Your task to perform on an android device: Open battery settings Image 0: 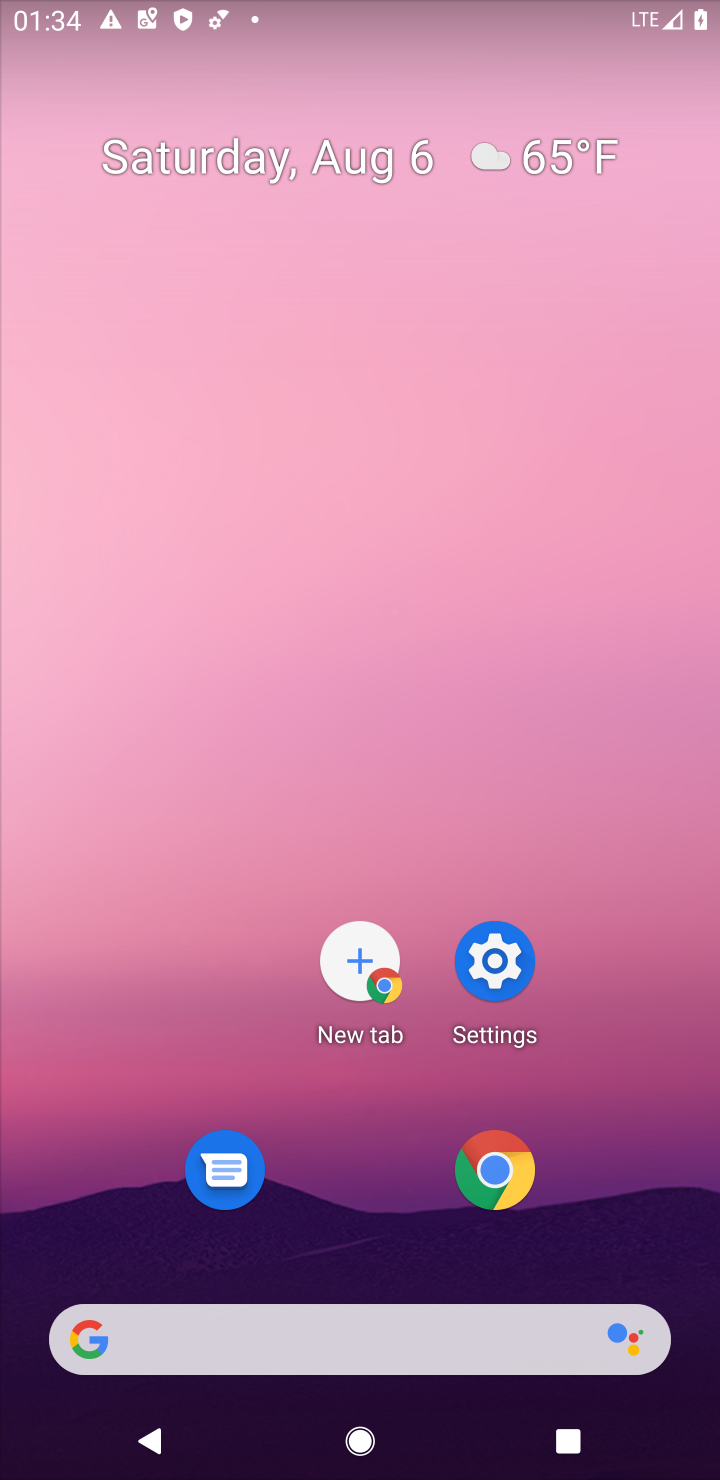
Step 0: click (499, 1160)
Your task to perform on an android device: Open battery settings Image 1: 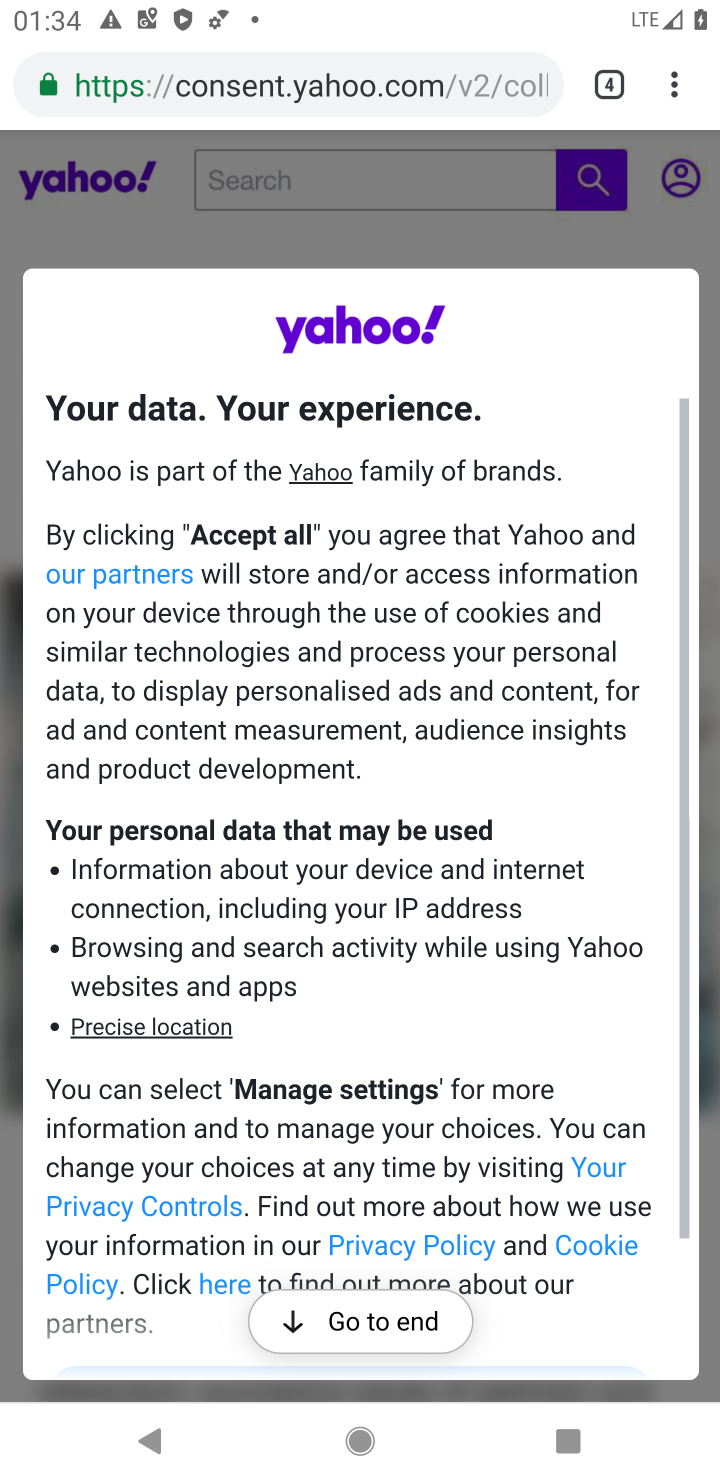
Step 1: click (356, 90)
Your task to perform on an android device: Open battery settings Image 2: 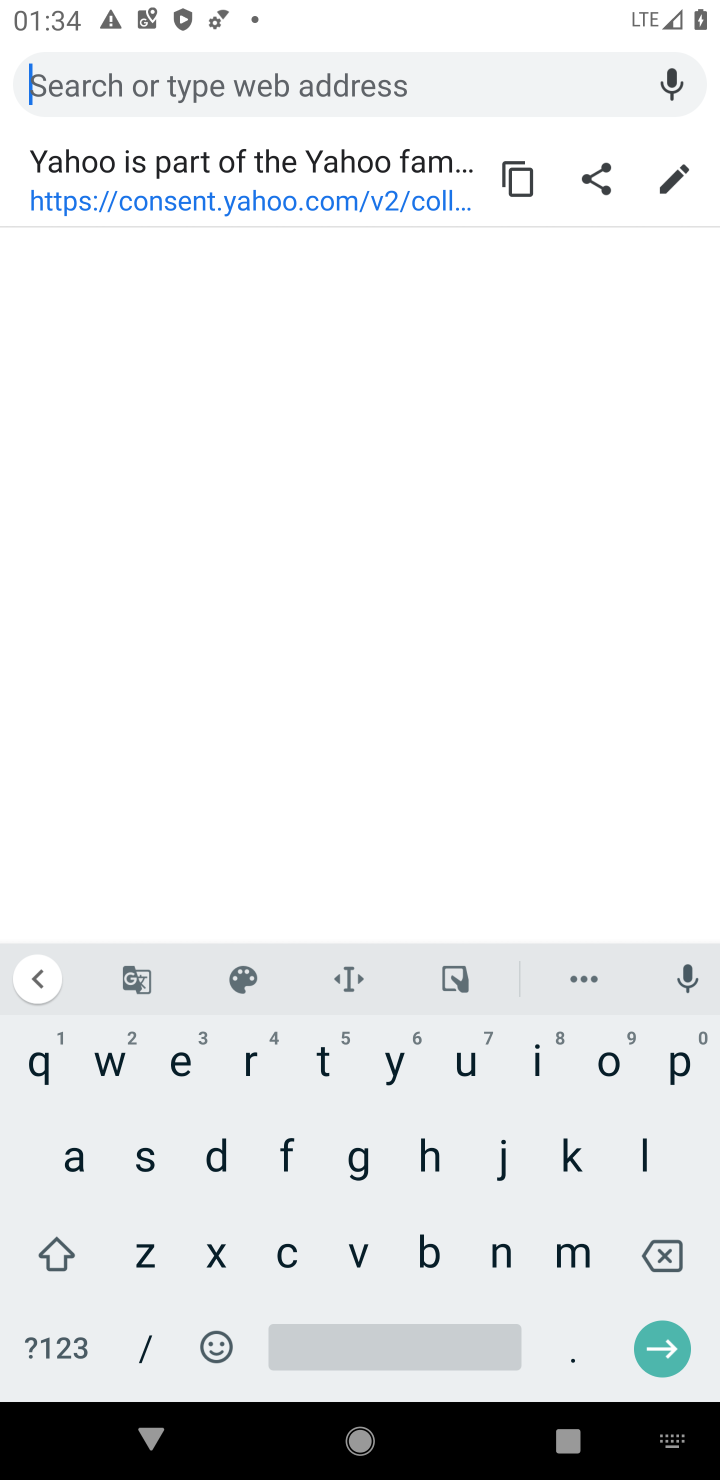
Step 2: click (352, 1163)
Your task to perform on an android device: Open battery settings Image 3: 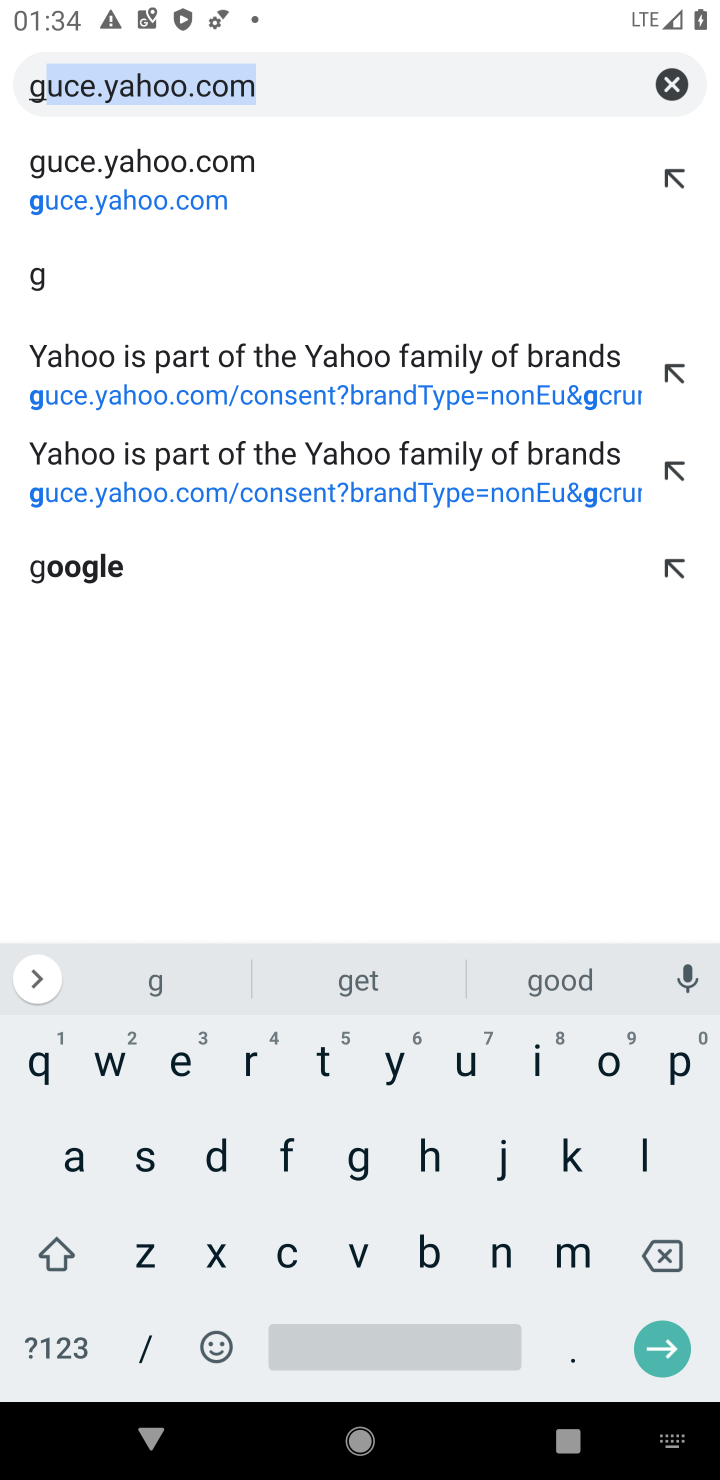
Step 3: click (611, 1046)
Your task to perform on an android device: Open battery settings Image 4: 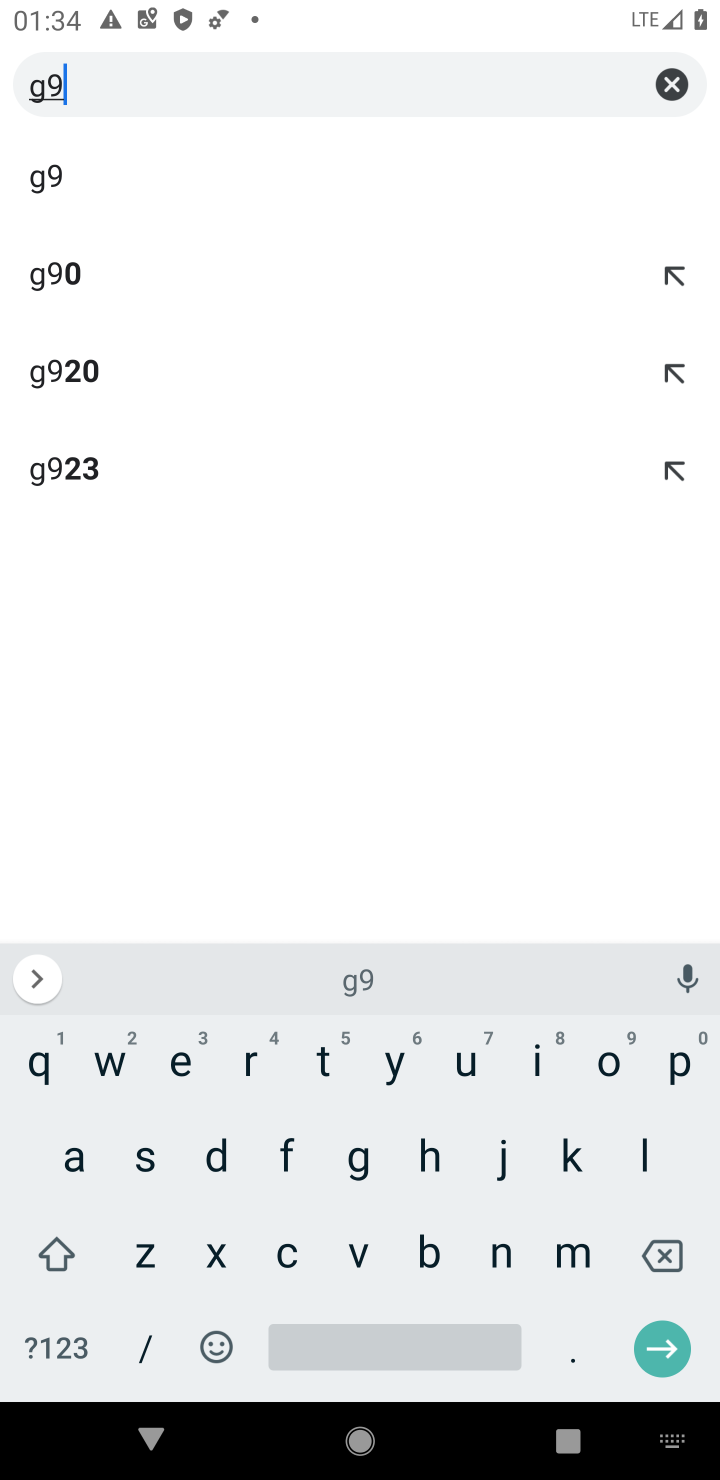
Step 4: click (671, 1246)
Your task to perform on an android device: Open battery settings Image 5: 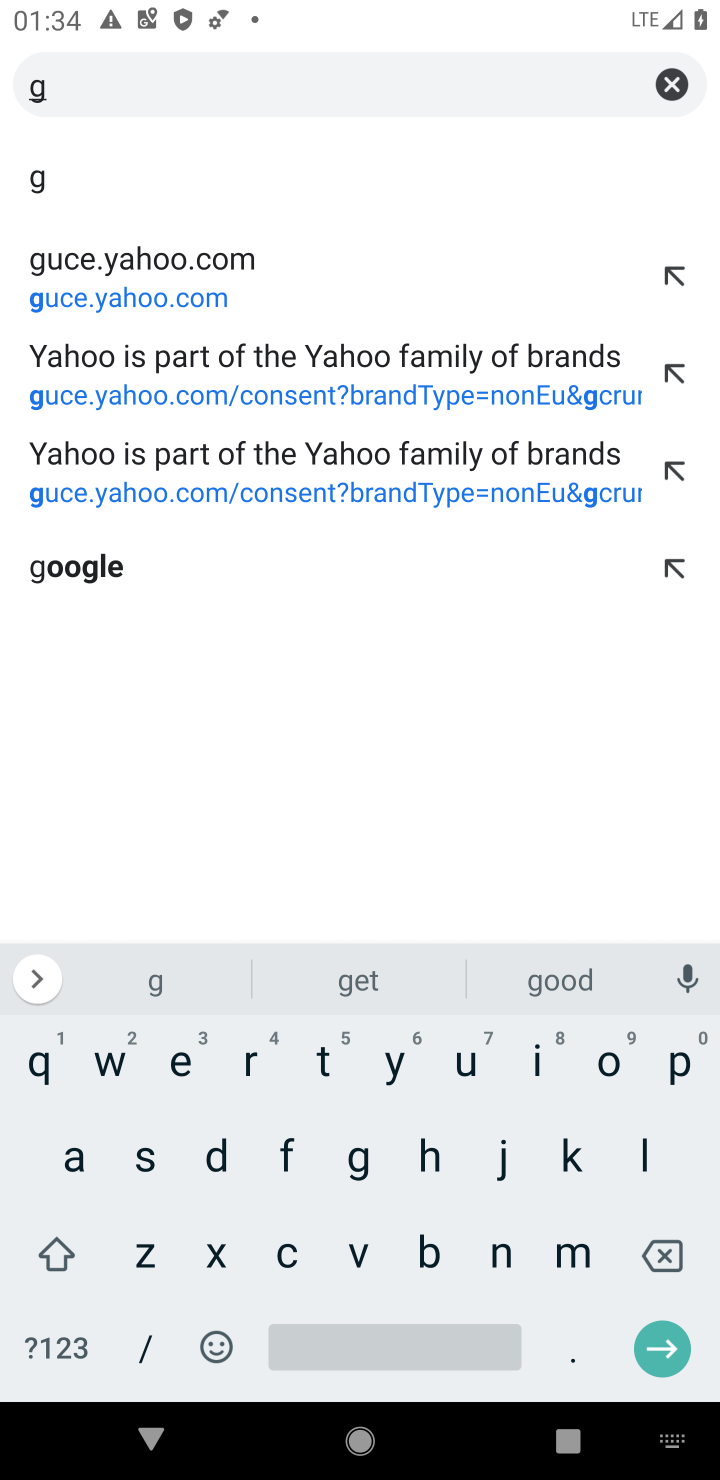
Step 5: click (604, 1065)
Your task to perform on an android device: Open battery settings Image 6: 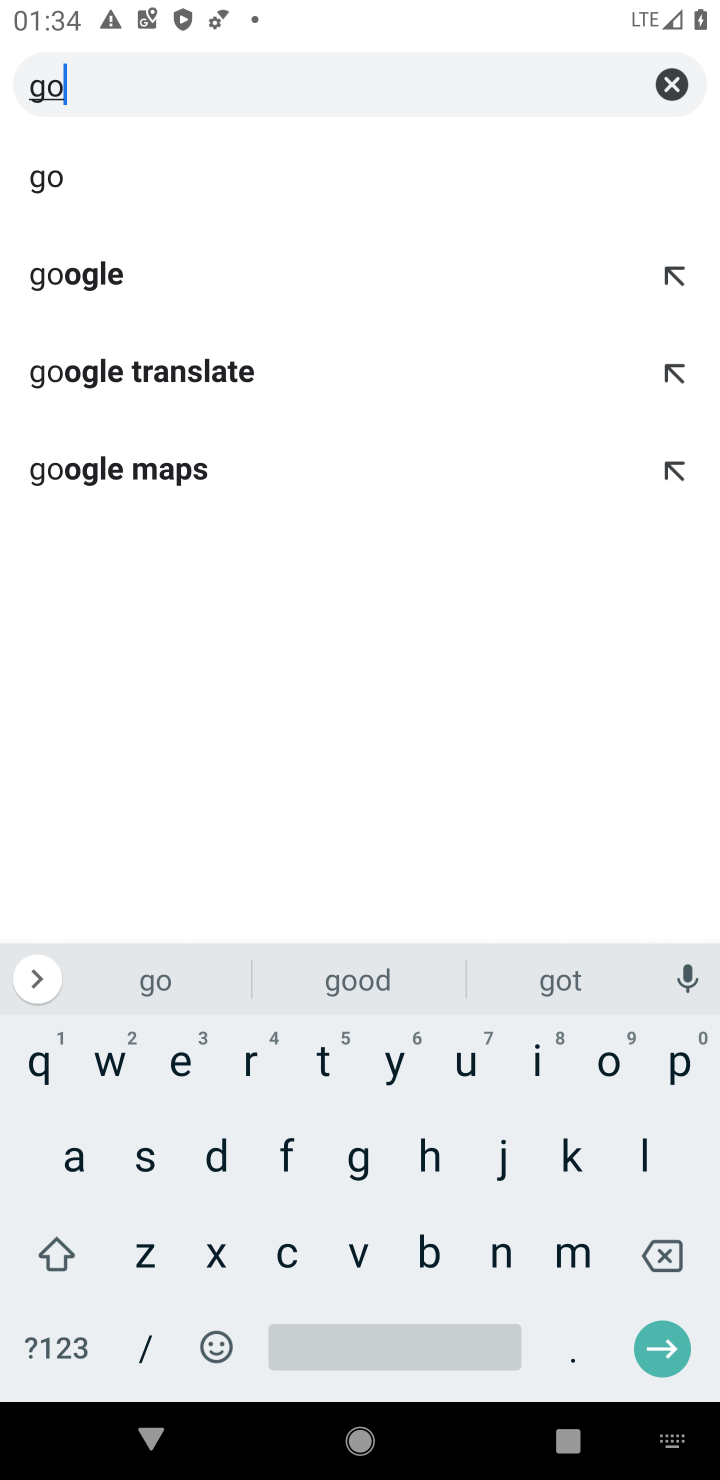
Step 6: click (604, 1065)
Your task to perform on an android device: Open battery settings Image 7: 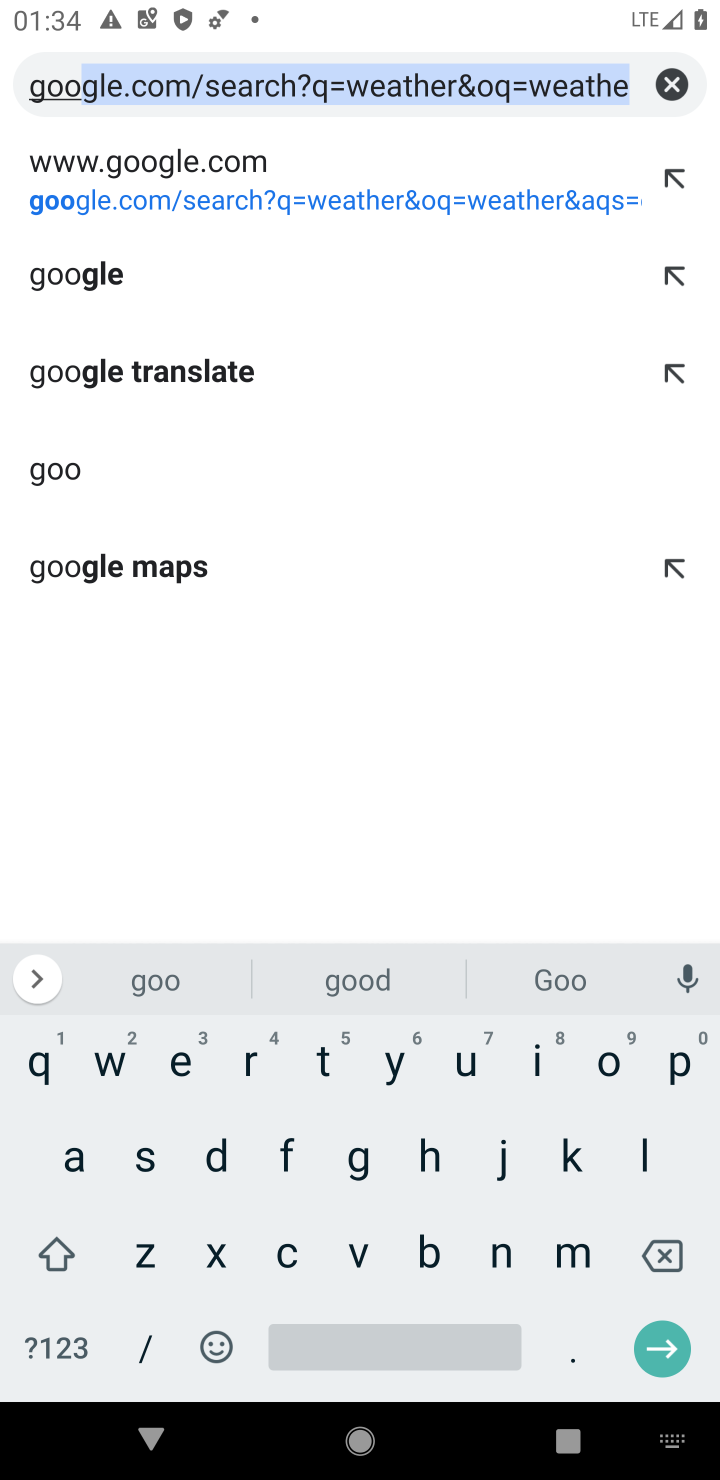
Step 7: click (50, 294)
Your task to perform on an android device: Open battery settings Image 8: 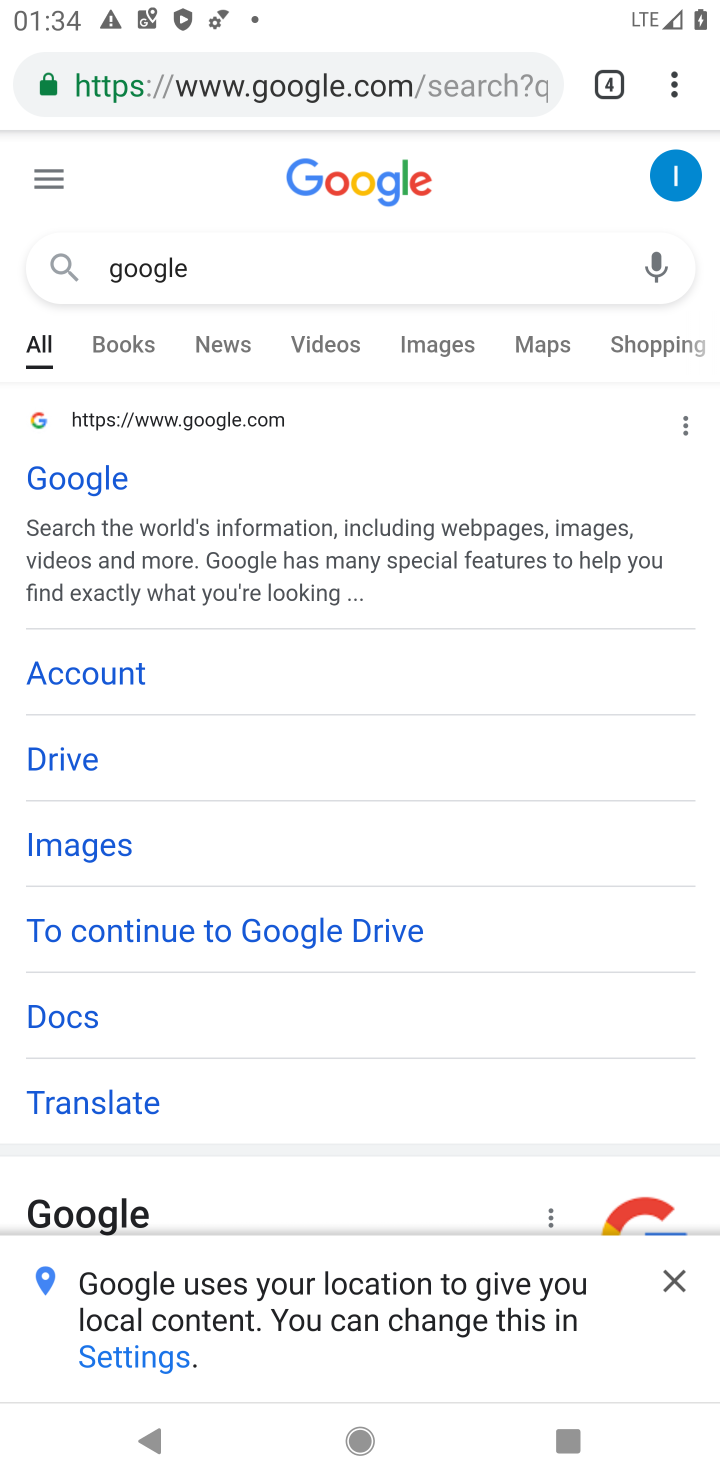
Step 8: click (90, 485)
Your task to perform on an android device: Open battery settings Image 9: 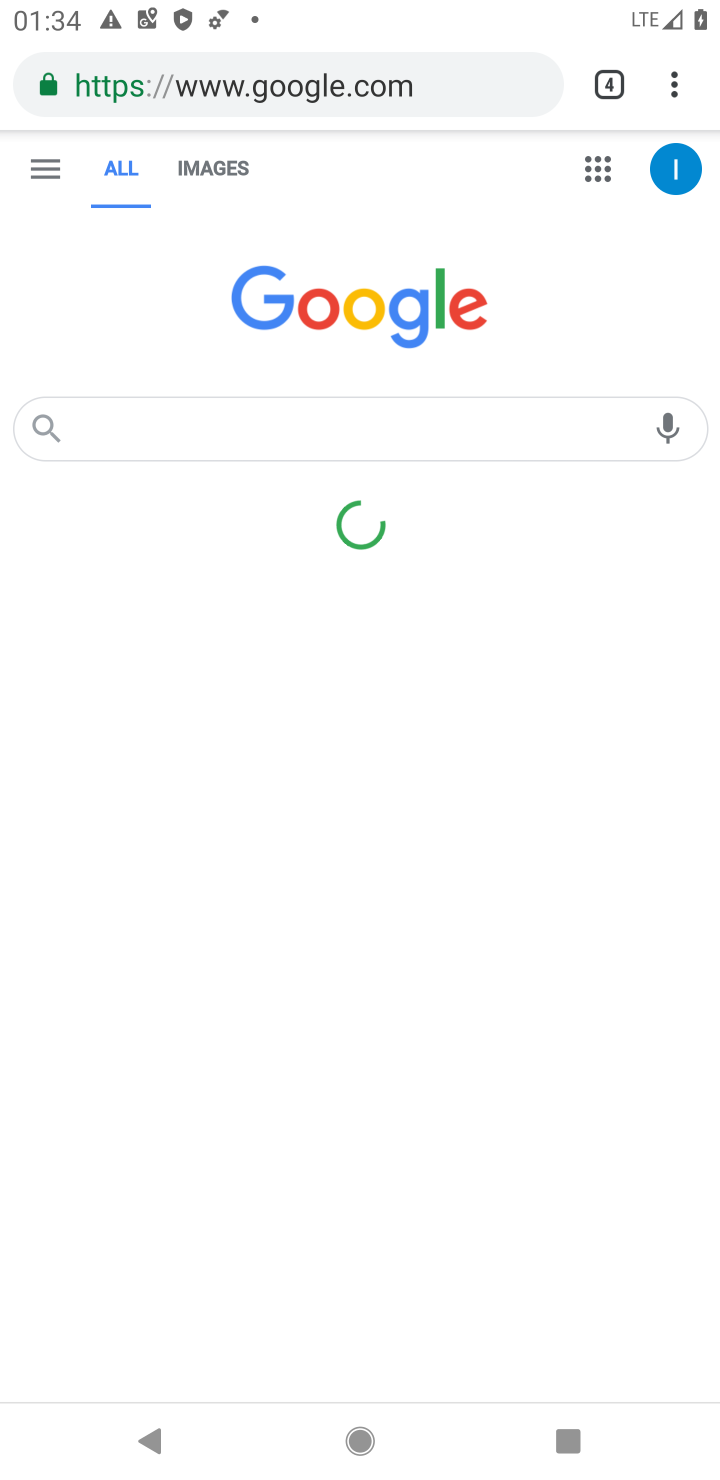
Step 9: task complete